Your task to perform on an android device: change your default location settings in chrome Image 0: 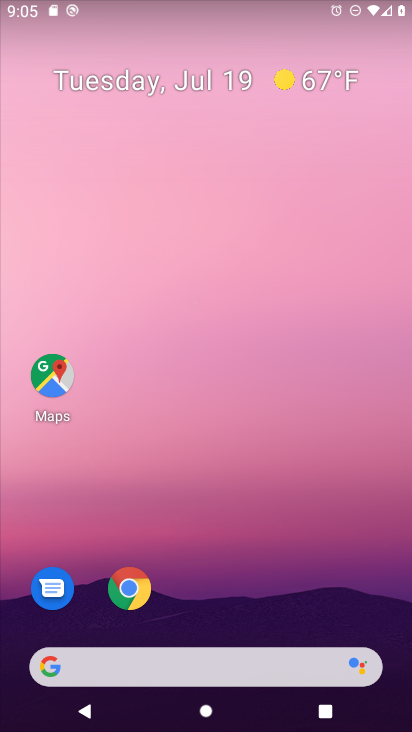
Step 0: drag from (267, 606) to (328, 133)
Your task to perform on an android device: change your default location settings in chrome Image 1: 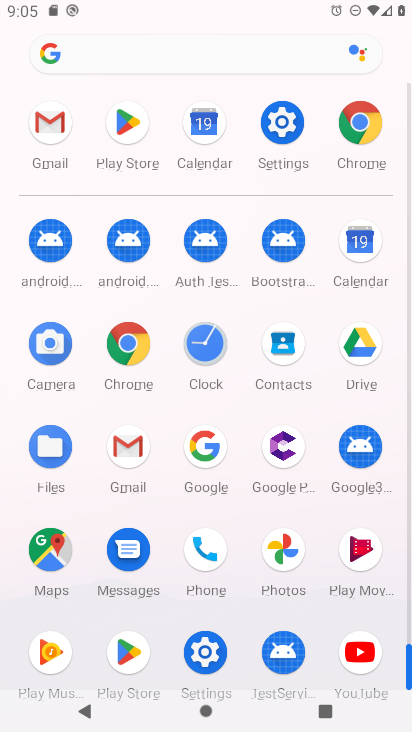
Step 1: click (367, 124)
Your task to perform on an android device: change your default location settings in chrome Image 2: 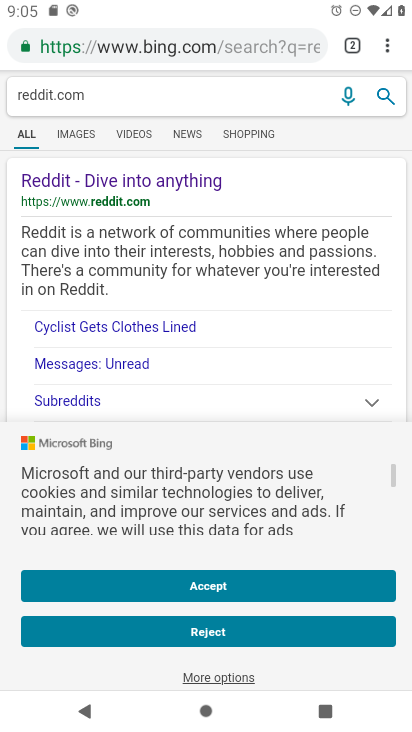
Step 2: click (385, 45)
Your task to perform on an android device: change your default location settings in chrome Image 3: 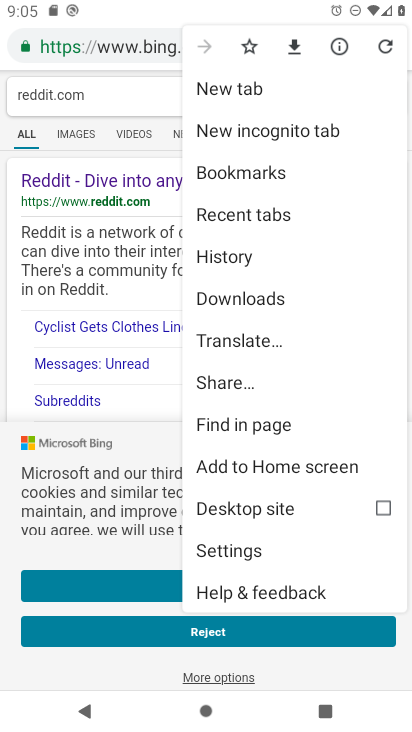
Step 3: click (274, 553)
Your task to perform on an android device: change your default location settings in chrome Image 4: 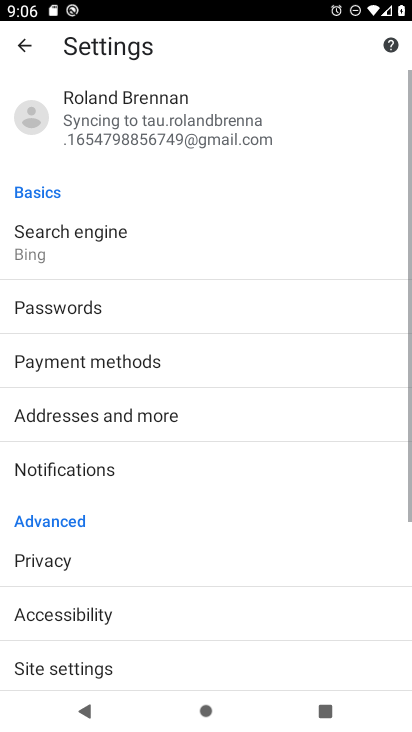
Step 4: drag from (301, 494) to (301, 324)
Your task to perform on an android device: change your default location settings in chrome Image 5: 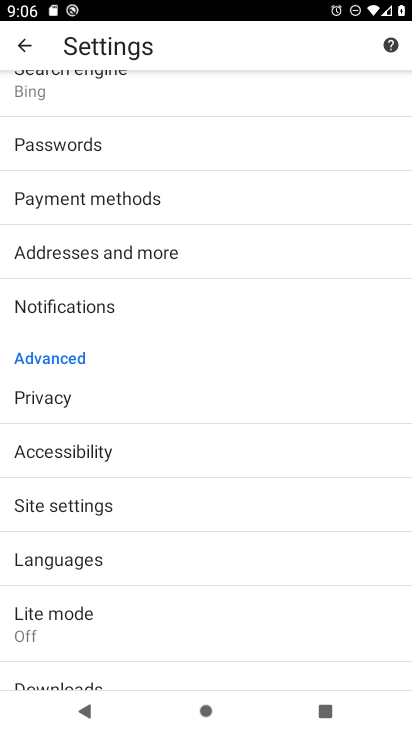
Step 5: drag from (305, 546) to (303, 390)
Your task to perform on an android device: change your default location settings in chrome Image 6: 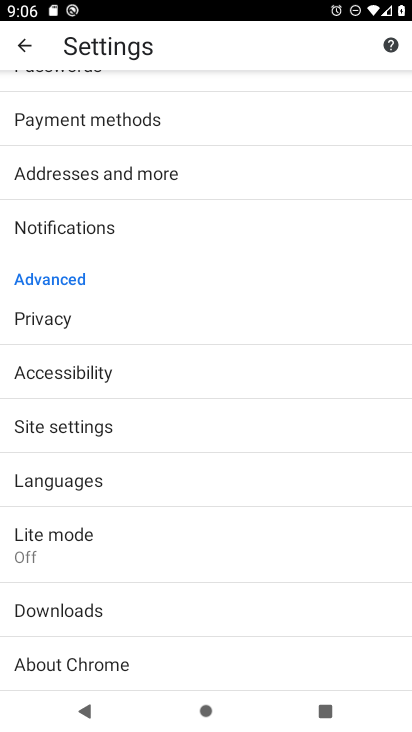
Step 6: drag from (298, 566) to (296, 386)
Your task to perform on an android device: change your default location settings in chrome Image 7: 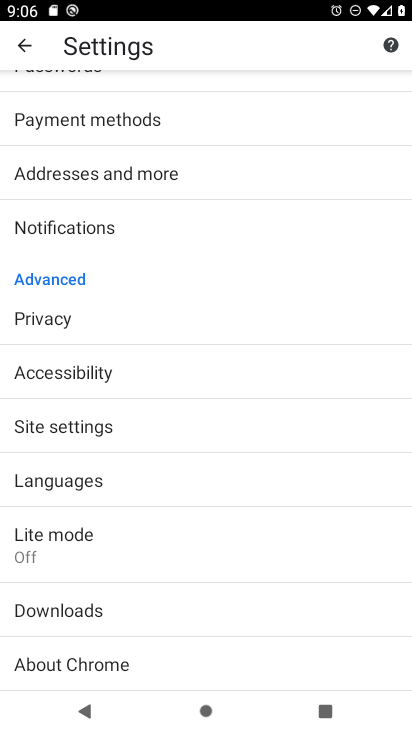
Step 7: click (226, 421)
Your task to perform on an android device: change your default location settings in chrome Image 8: 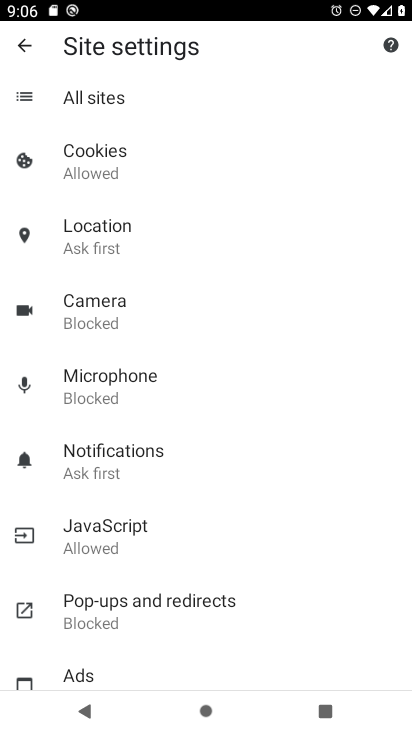
Step 8: drag from (300, 515) to (299, 418)
Your task to perform on an android device: change your default location settings in chrome Image 9: 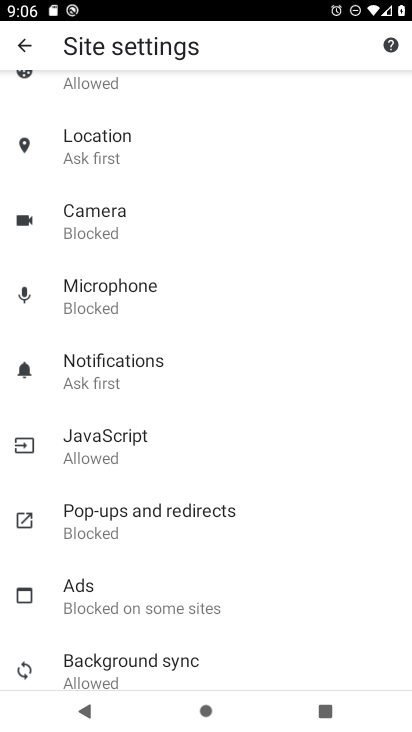
Step 9: drag from (294, 546) to (312, 395)
Your task to perform on an android device: change your default location settings in chrome Image 10: 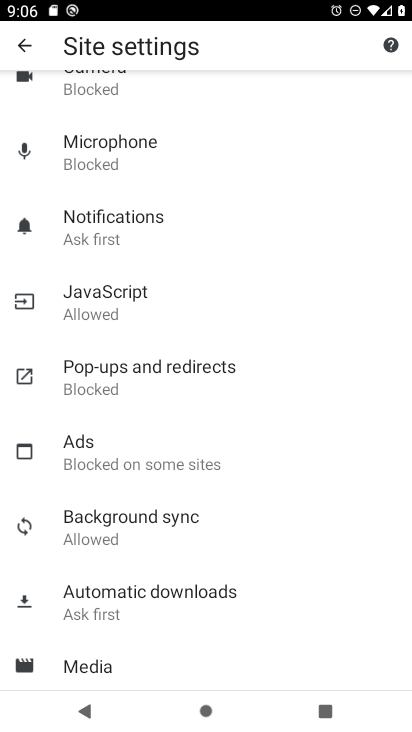
Step 10: drag from (322, 300) to (339, 481)
Your task to perform on an android device: change your default location settings in chrome Image 11: 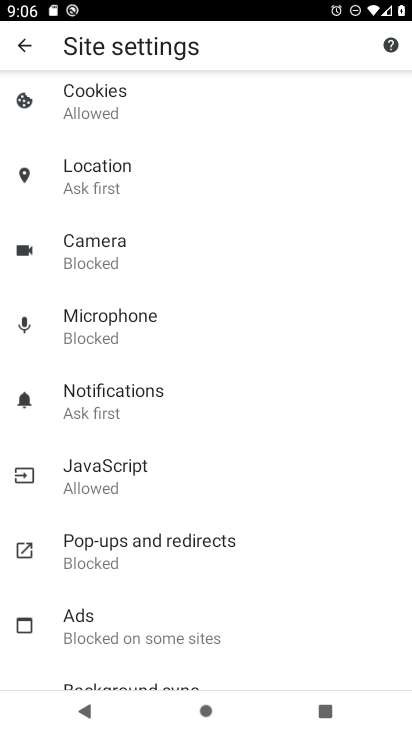
Step 11: drag from (336, 247) to (342, 375)
Your task to perform on an android device: change your default location settings in chrome Image 12: 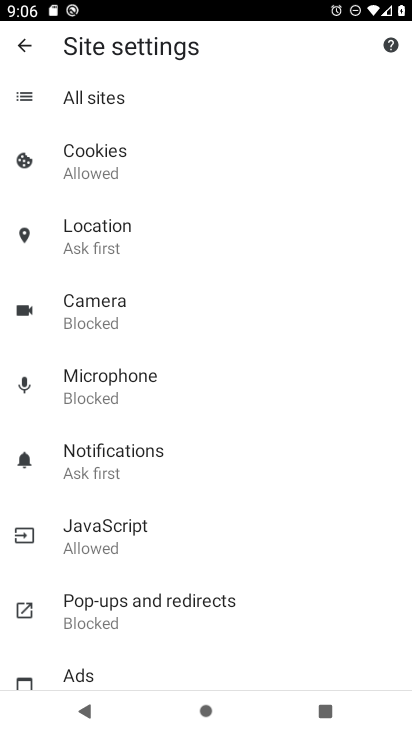
Step 12: click (193, 241)
Your task to perform on an android device: change your default location settings in chrome Image 13: 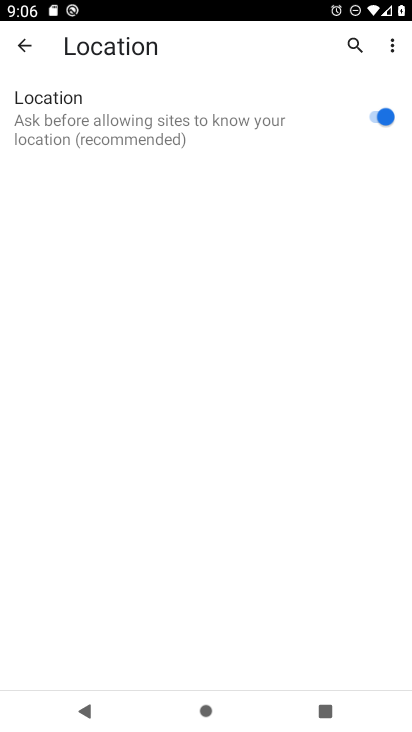
Step 13: click (376, 117)
Your task to perform on an android device: change your default location settings in chrome Image 14: 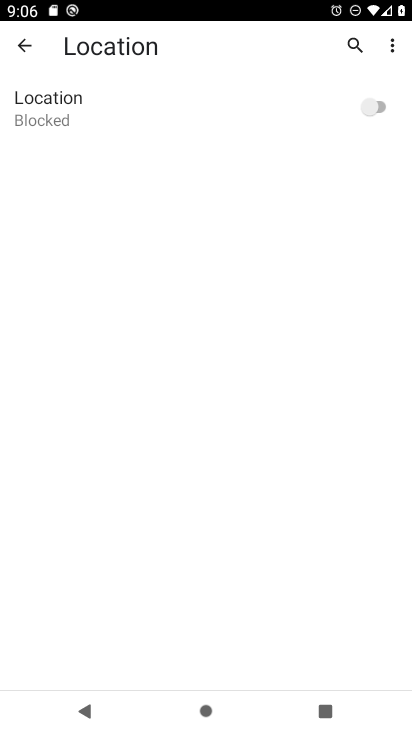
Step 14: task complete